Your task to perform on an android device: Go to Maps Image 0: 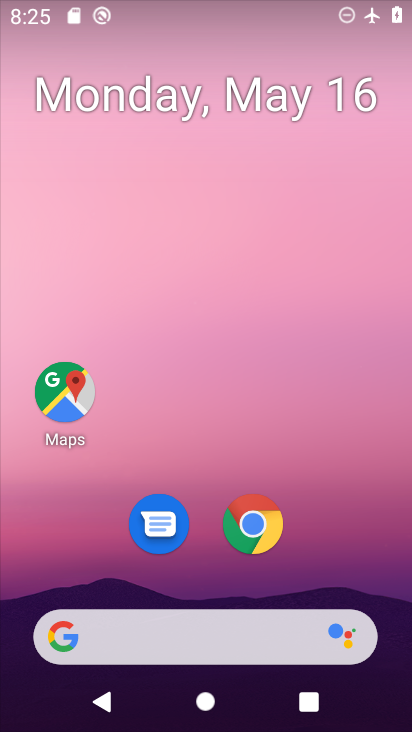
Step 0: click (54, 376)
Your task to perform on an android device: Go to Maps Image 1: 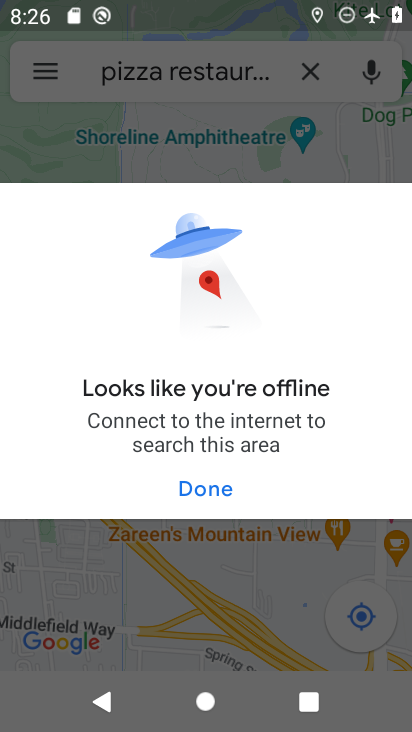
Step 1: task complete